Your task to perform on an android device: open app "Spotify: Music and Podcasts" Image 0: 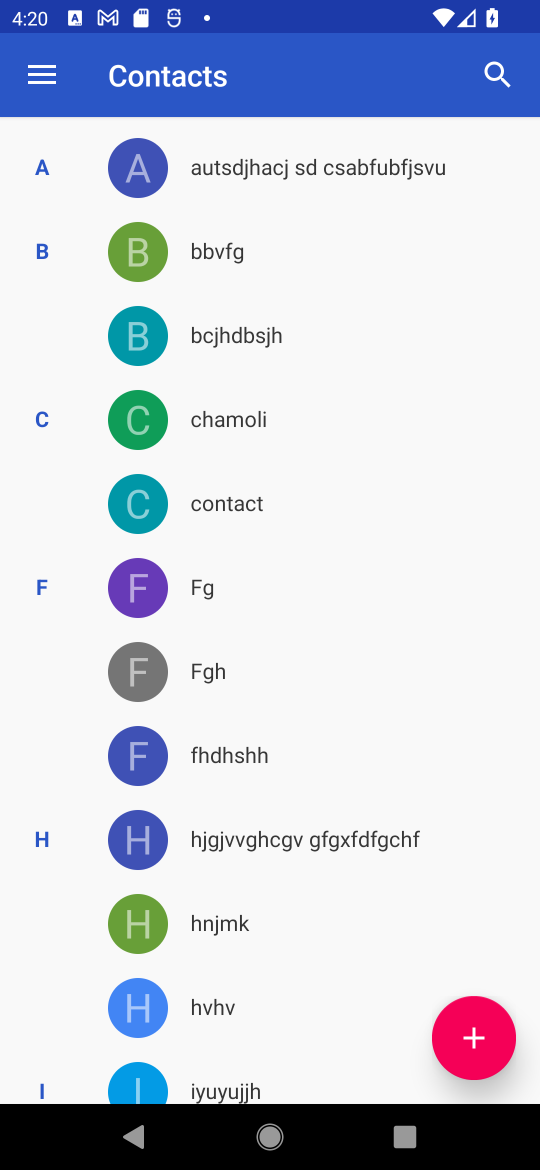
Step 0: press home button
Your task to perform on an android device: open app "Spotify: Music and Podcasts" Image 1: 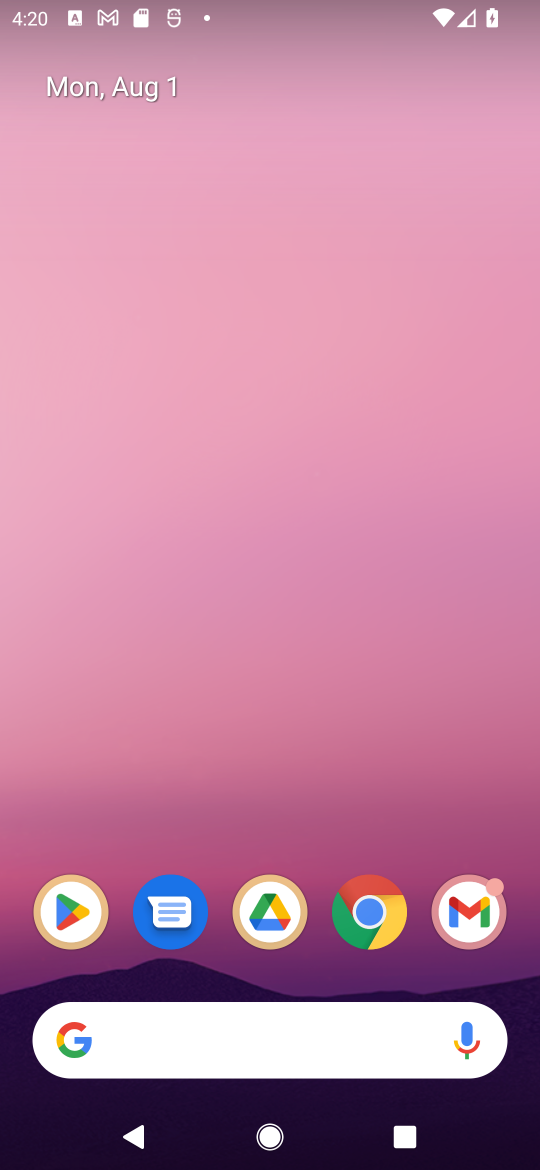
Step 1: click (90, 921)
Your task to perform on an android device: open app "Spotify: Music and Podcasts" Image 2: 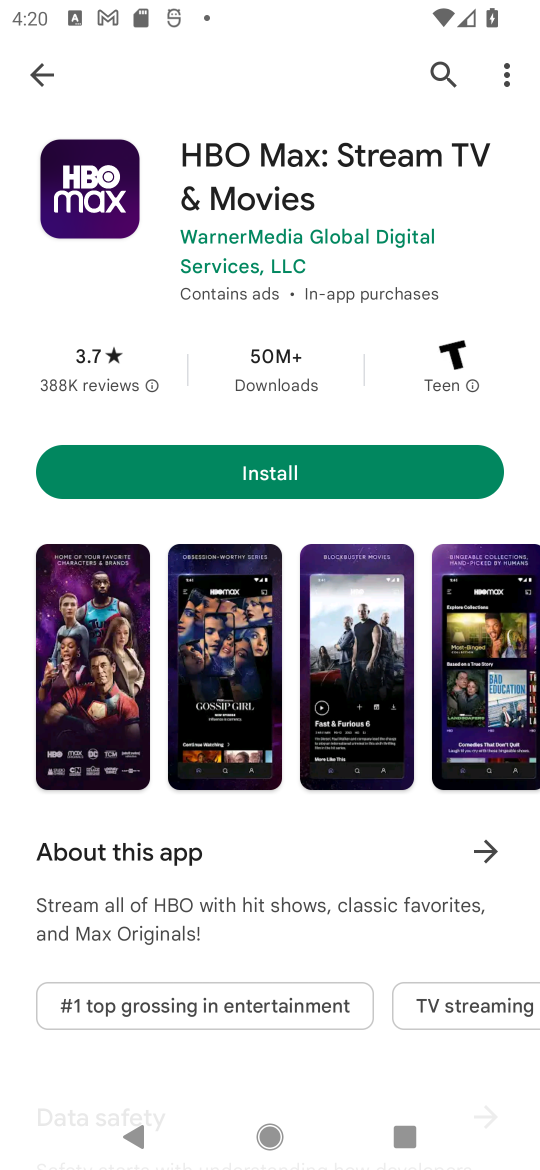
Step 2: click (441, 74)
Your task to perform on an android device: open app "Spotify: Music and Podcasts" Image 3: 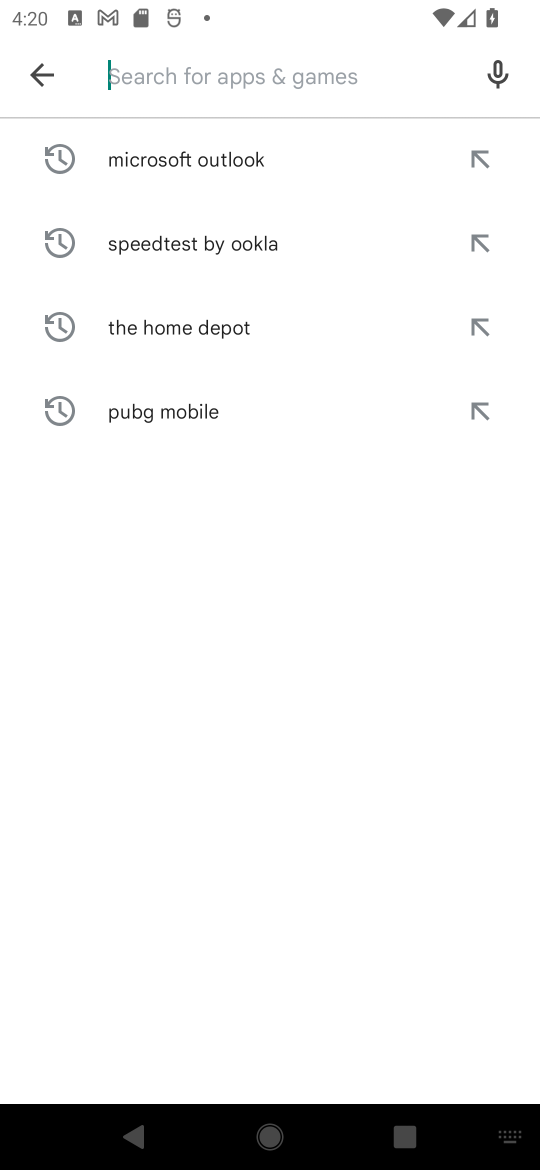
Step 3: click (364, 71)
Your task to perform on an android device: open app "Spotify: Music and Podcasts" Image 4: 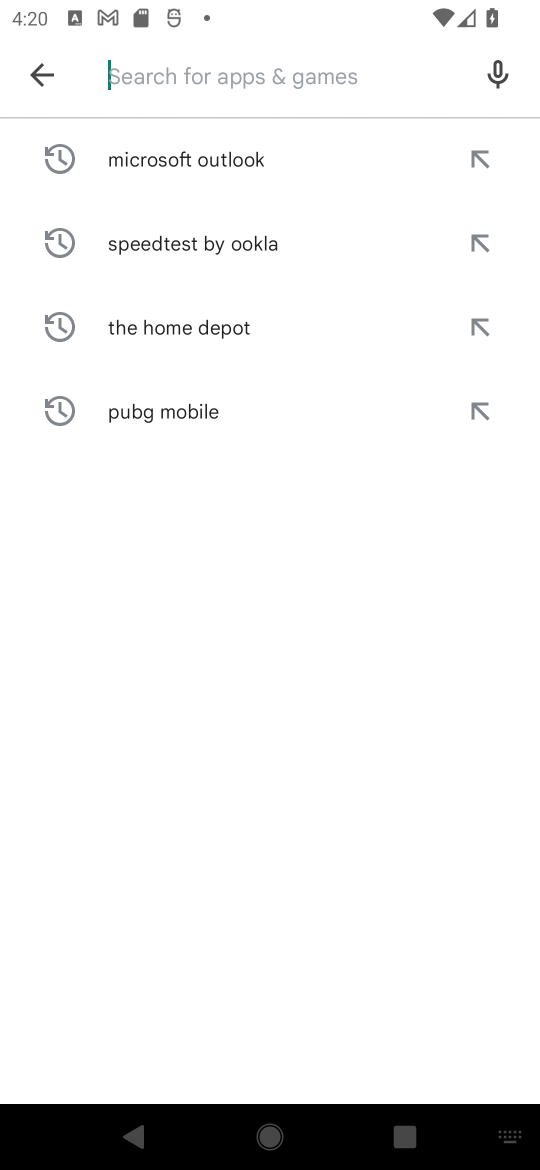
Step 4: type "Spotify: Music and Podcasts"
Your task to perform on an android device: open app "Spotify: Music and Podcasts" Image 5: 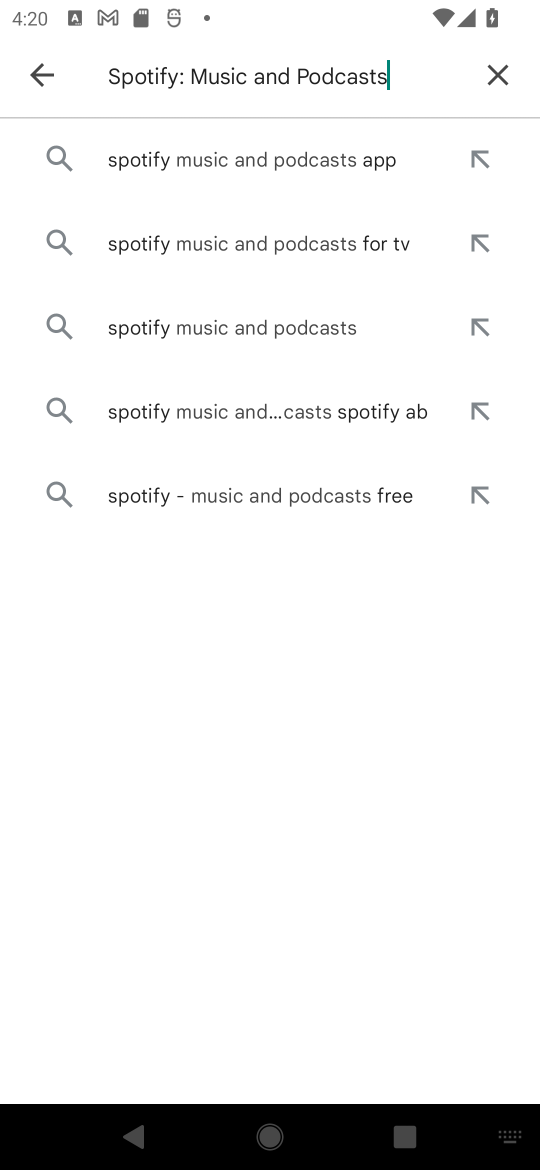
Step 5: click (175, 162)
Your task to perform on an android device: open app "Spotify: Music and Podcasts" Image 6: 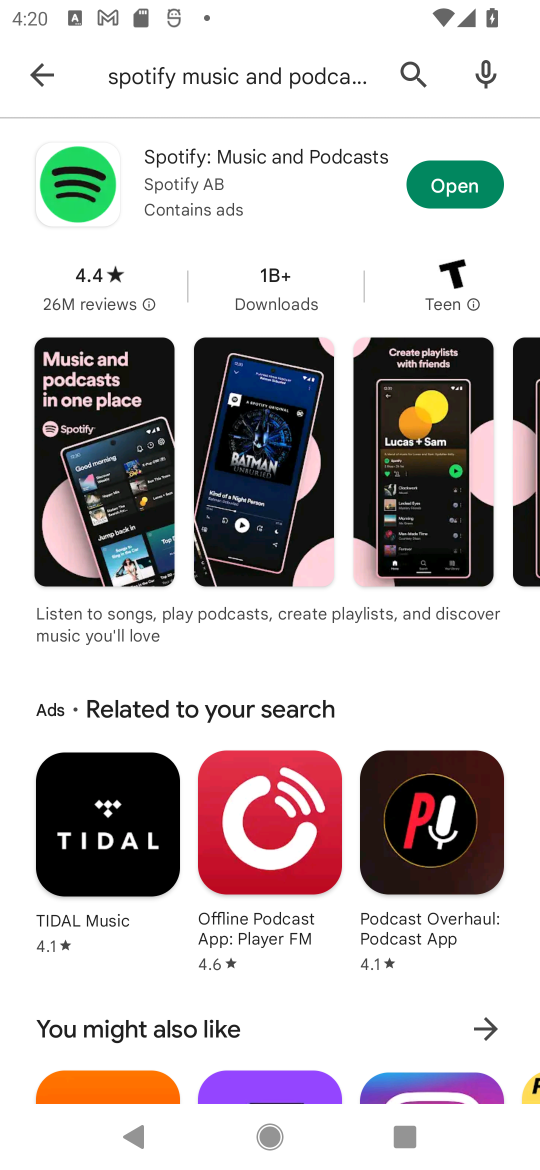
Step 6: click (457, 184)
Your task to perform on an android device: open app "Spotify: Music and Podcasts" Image 7: 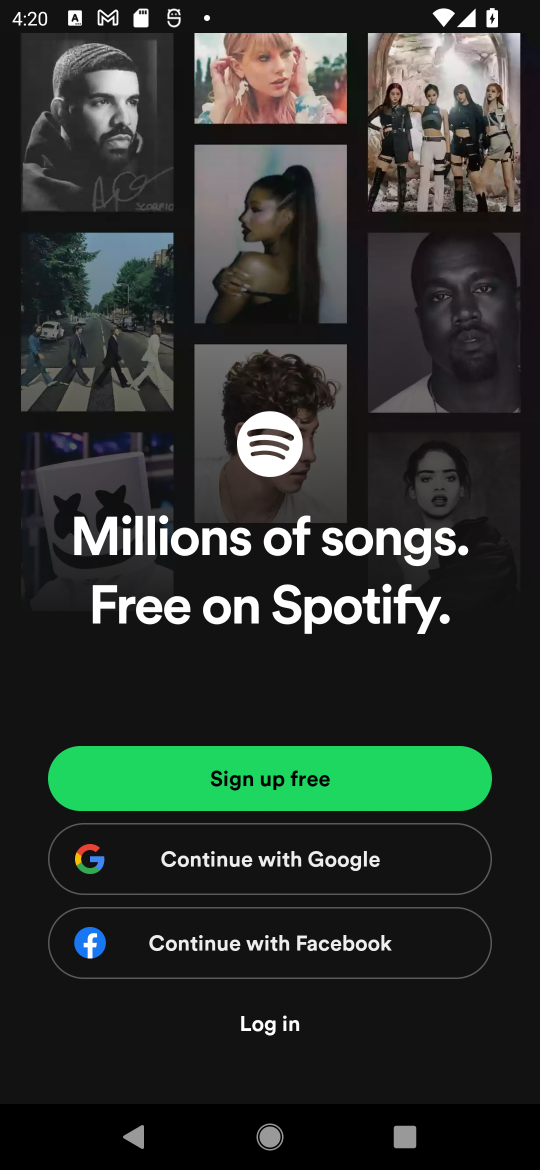
Step 7: task complete